Your task to perform on an android device: read, delete, or share a saved page in the chrome app Image 0: 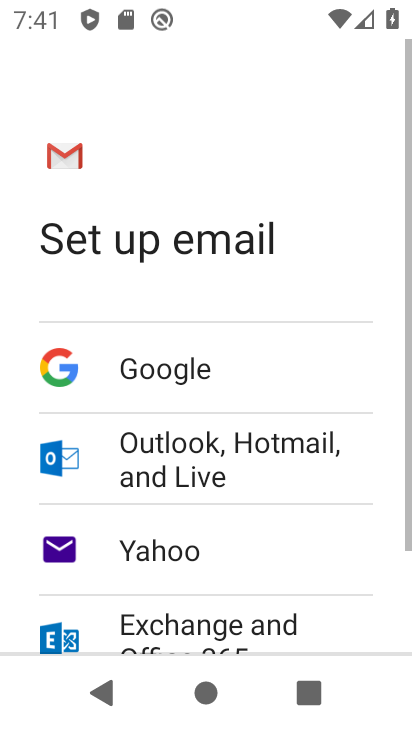
Step 0: press home button
Your task to perform on an android device: read, delete, or share a saved page in the chrome app Image 1: 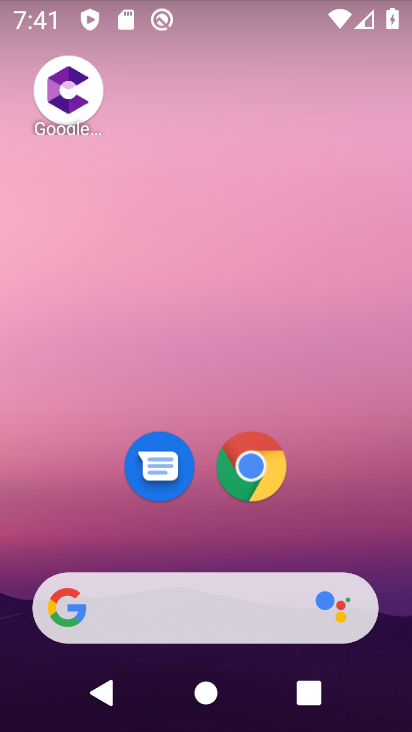
Step 1: click (260, 456)
Your task to perform on an android device: read, delete, or share a saved page in the chrome app Image 2: 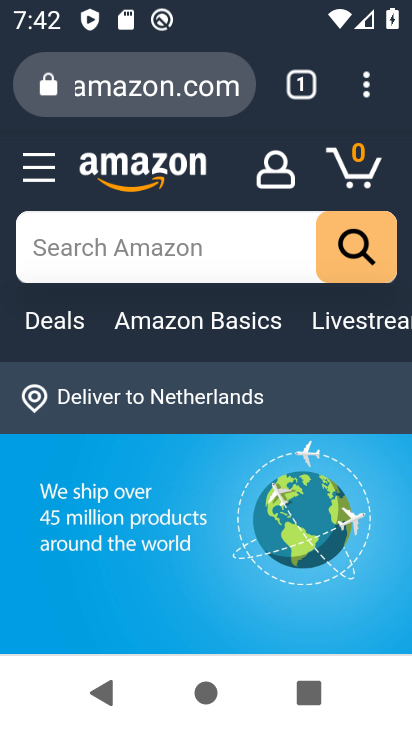
Step 2: click (293, 87)
Your task to perform on an android device: read, delete, or share a saved page in the chrome app Image 3: 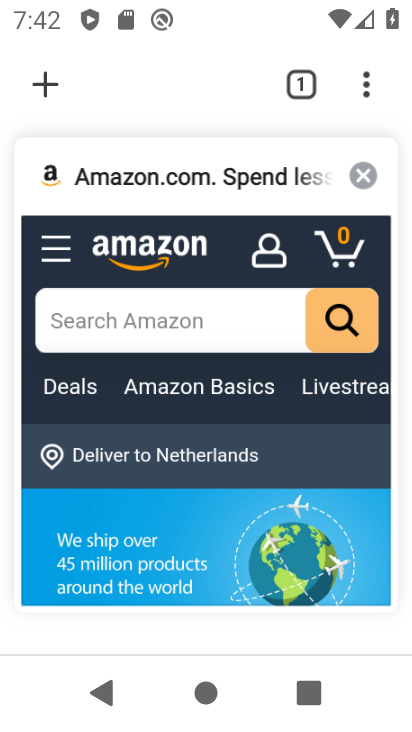
Step 3: click (358, 177)
Your task to perform on an android device: read, delete, or share a saved page in the chrome app Image 4: 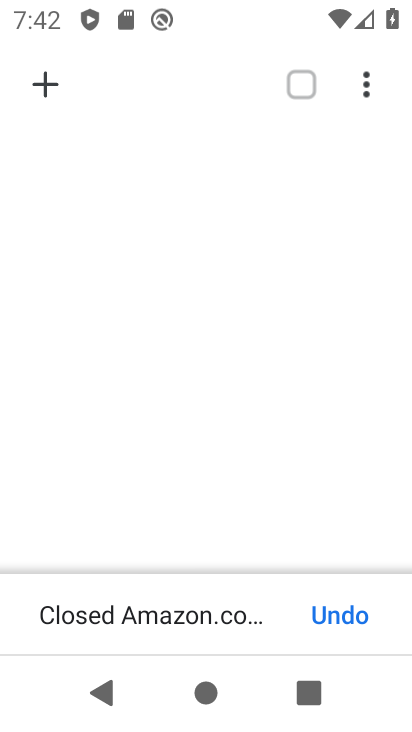
Step 4: click (47, 82)
Your task to perform on an android device: read, delete, or share a saved page in the chrome app Image 5: 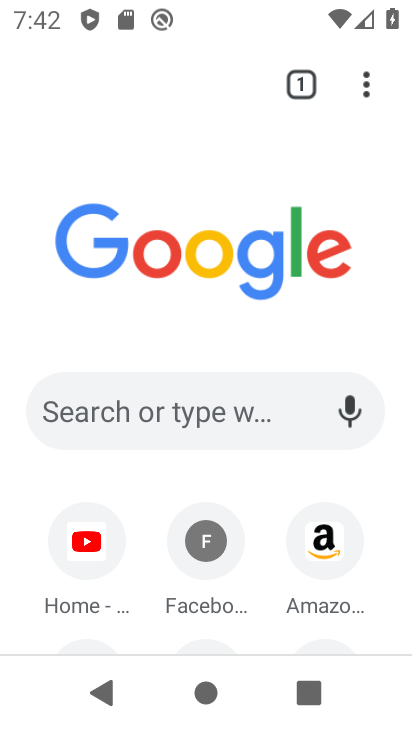
Step 5: drag from (30, 574) to (335, 140)
Your task to perform on an android device: read, delete, or share a saved page in the chrome app Image 6: 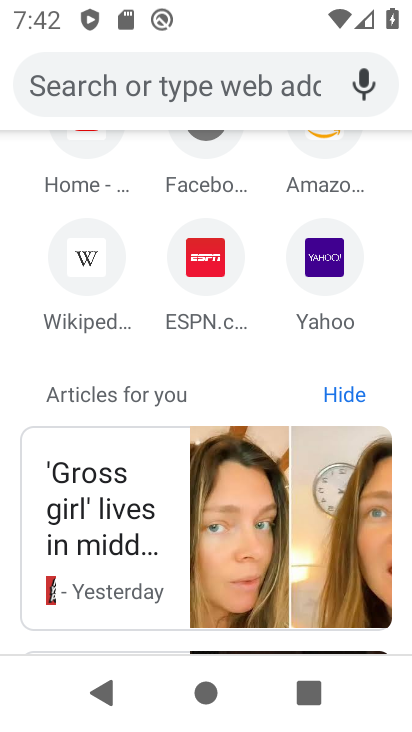
Step 6: drag from (70, 160) to (0, 465)
Your task to perform on an android device: read, delete, or share a saved page in the chrome app Image 7: 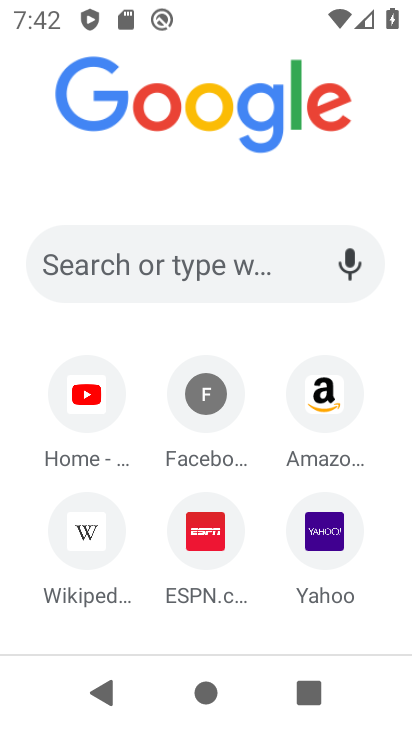
Step 7: click (68, 397)
Your task to perform on an android device: read, delete, or share a saved page in the chrome app Image 8: 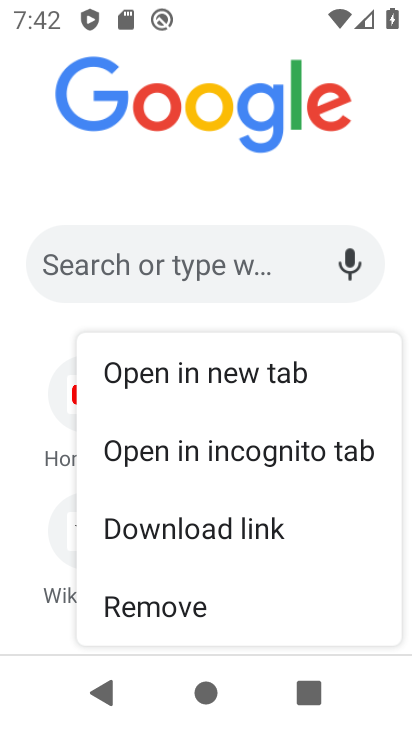
Step 8: click (205, 602)
Your task to perform on an android device: read, delete, or share a saved page in the chrome app Image 9: 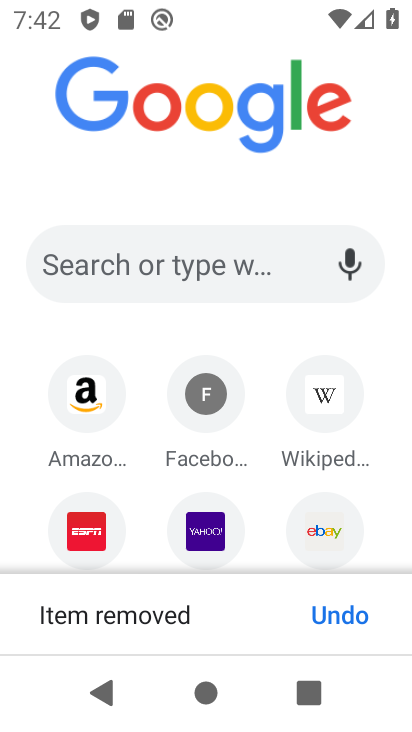
Step 9: task complete